Your task to perform on an android device: Open Google Image 0: 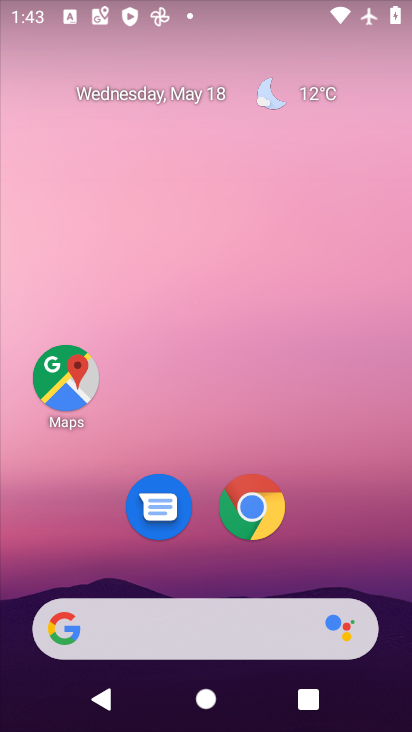
Step 0: click (250, 508)
Your task to perform on an android device: Open Google Image 1: 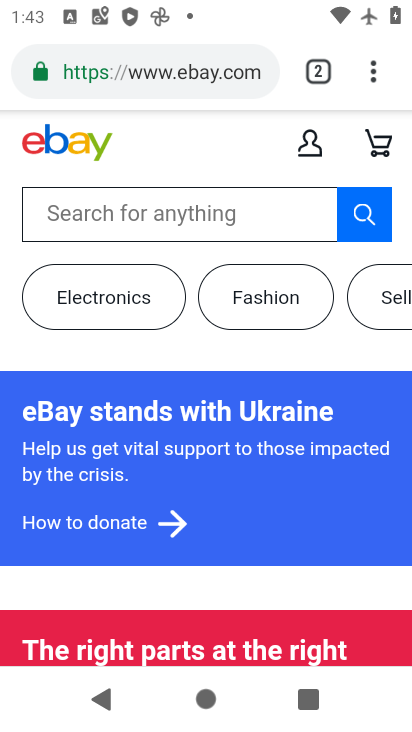
Step 1: task complete